Your task to perform on an android device: uninstall "AliExpress" Image 0: 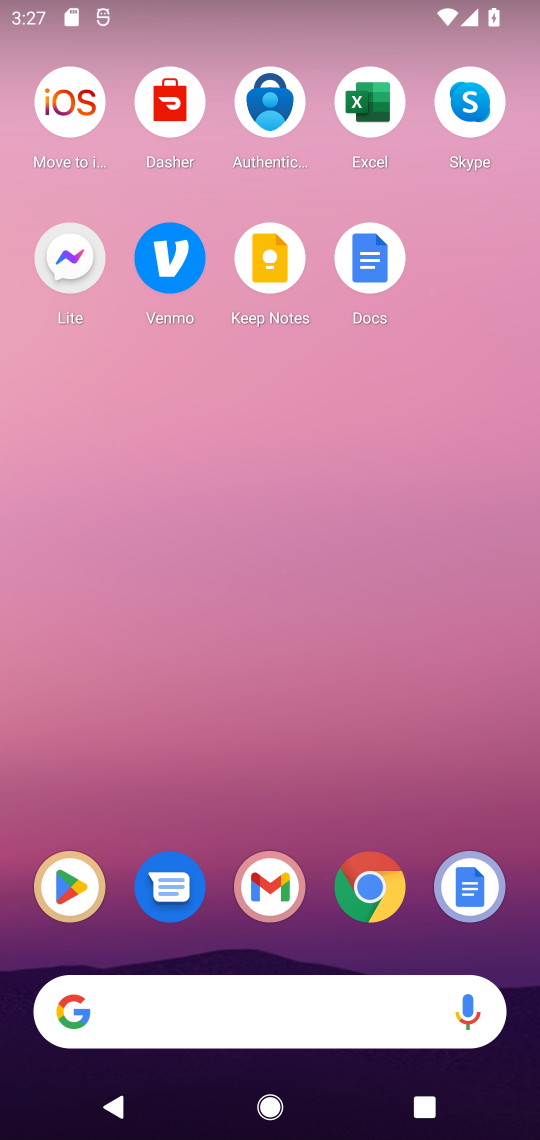
Step 0: click (31, 865)
Your task to perform on an android device: uninstall "AliExpress" Image 1: 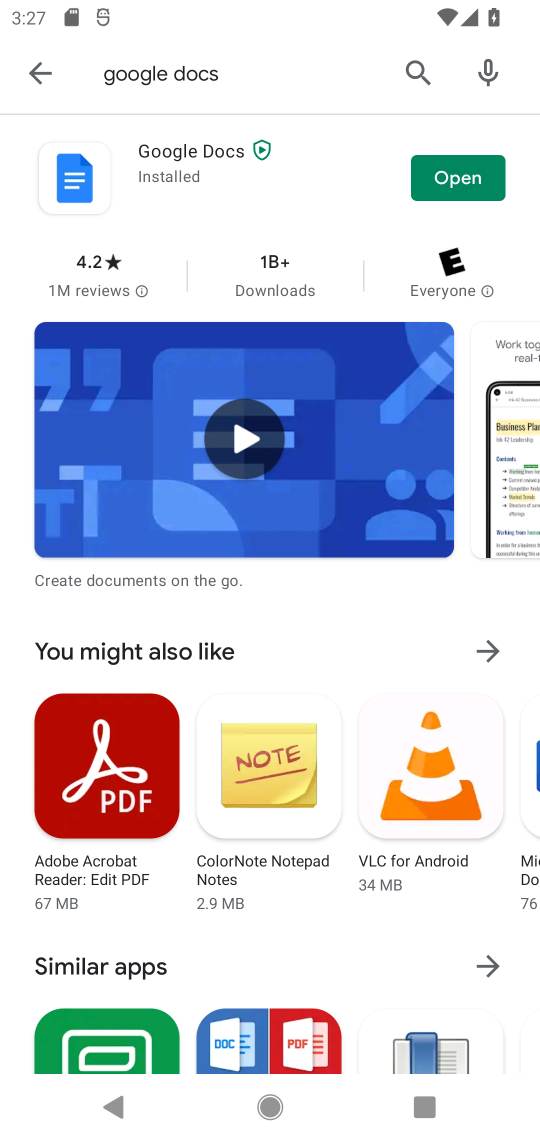
Step 1: click (37, 72)
Your task to perform on an android device: uninstall "AliExpress" Image 2: 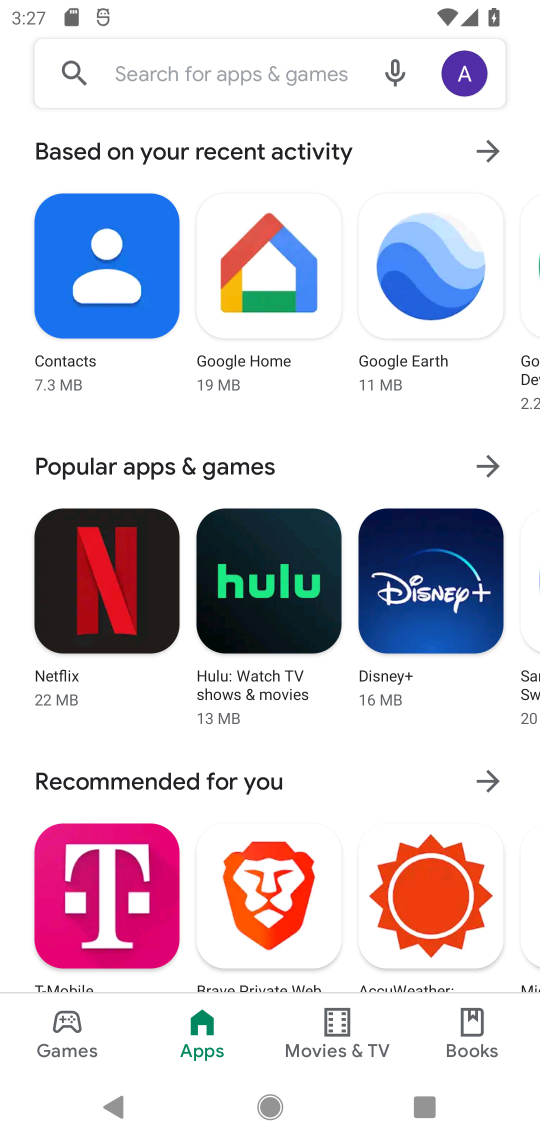
Step 2: click (180, 75)
Your task to perform on an android device: uninstall "AliExpress" Image 3: 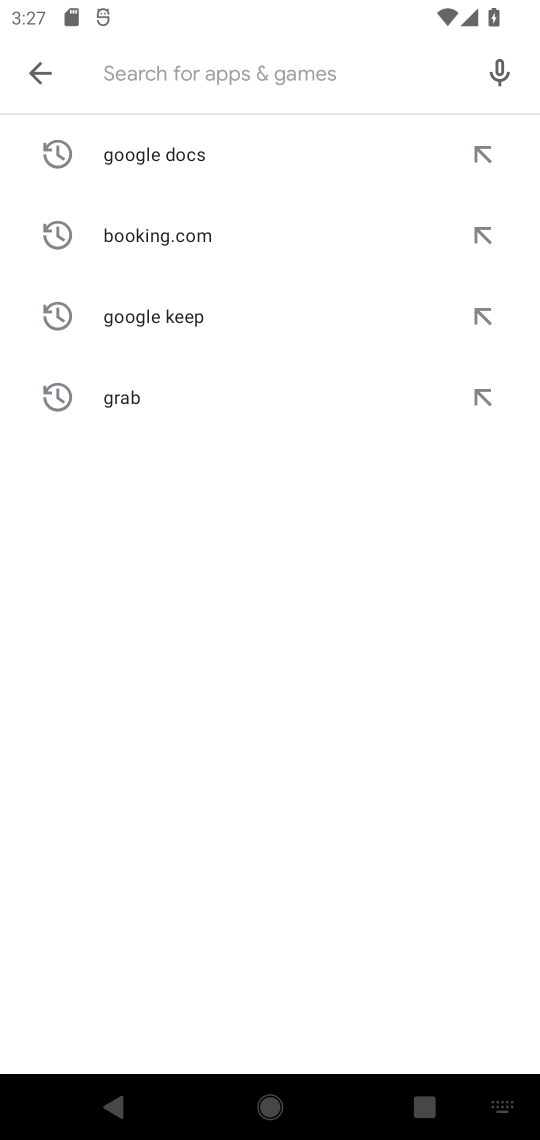
Step 3: type "AliExpress"
Your task to perform on an android device: uninstall "AliExpress" Image 4: 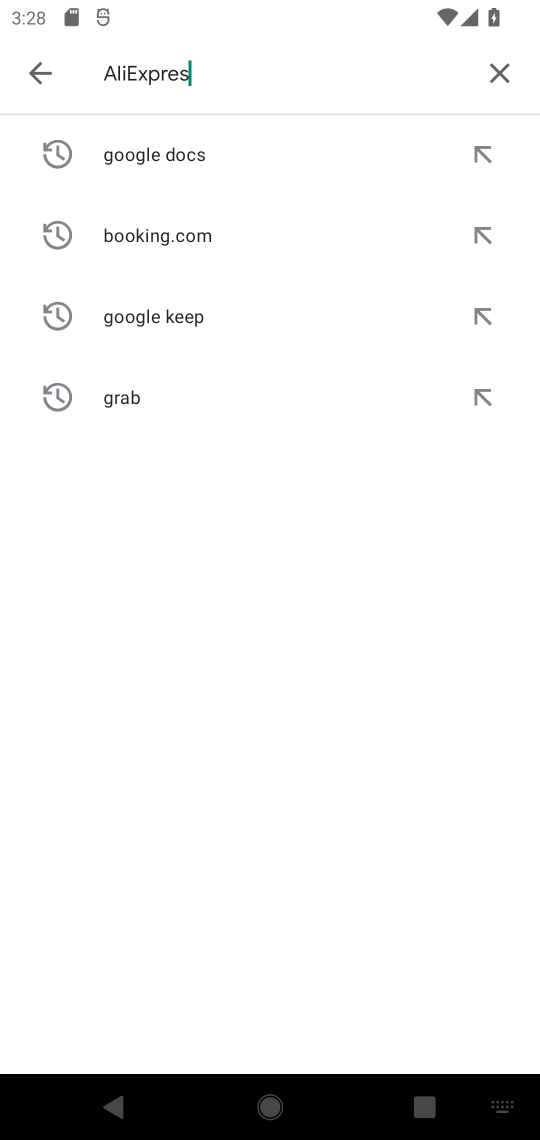
Step 4: type ""
Your task to perform on an android device: uninstall "AliExpress" Image 5: 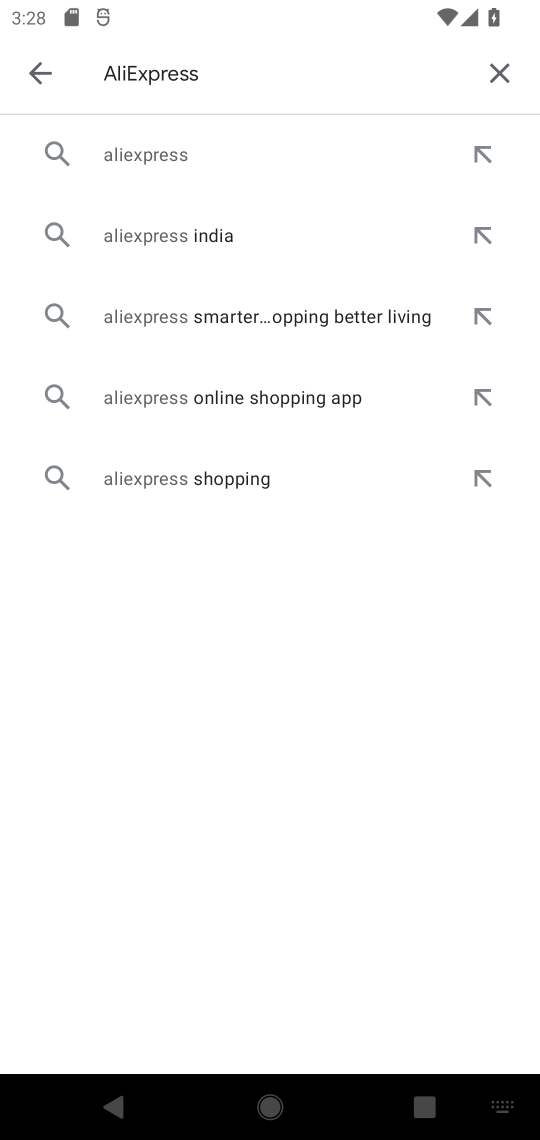
Step 5: click (222, 153)
Your task to perform on an android device: uninstall "AliExpress" Image 6: 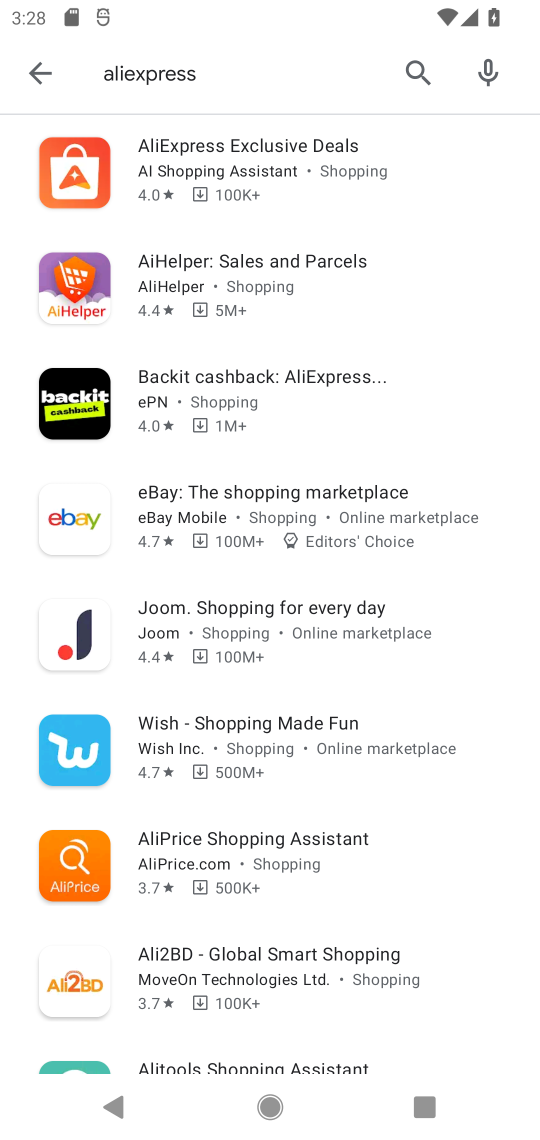
Step 6: task complete